Your task to perform on an android device: turn on wifi Image 0: 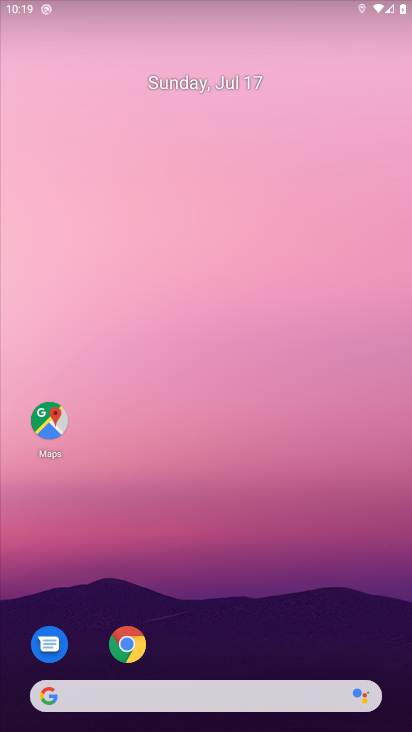
Step 0: press home button
Your task to perform on an android device: turn on wifi Image 1: 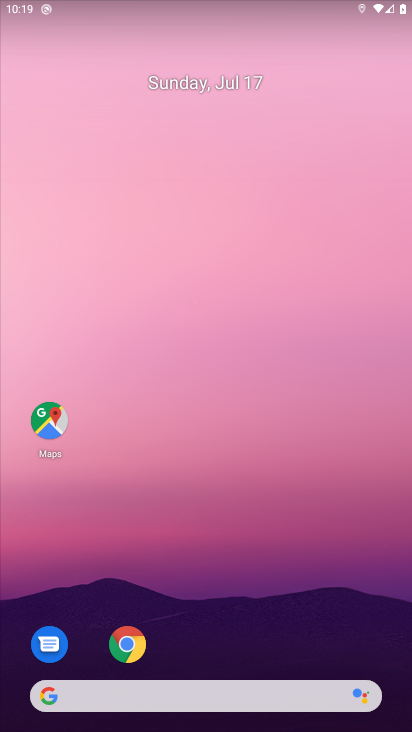
Step 1: press home button
Your task to perform on an android device: turn on wifi Image 2: 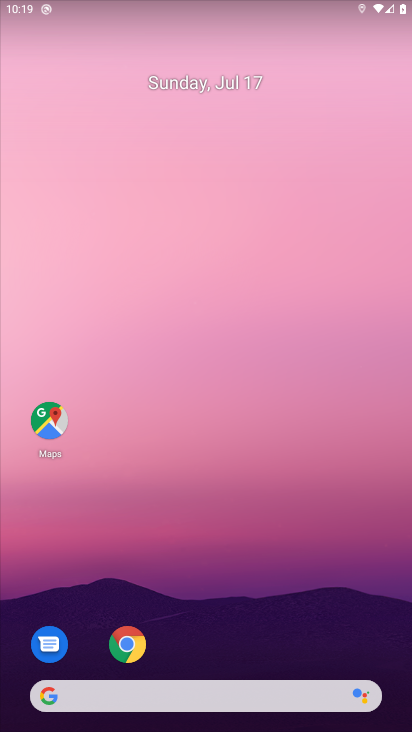
Step 2: drag from (301, 582) to (305, 171)
Your task to perform on an android device: turn on wifi Image 3: 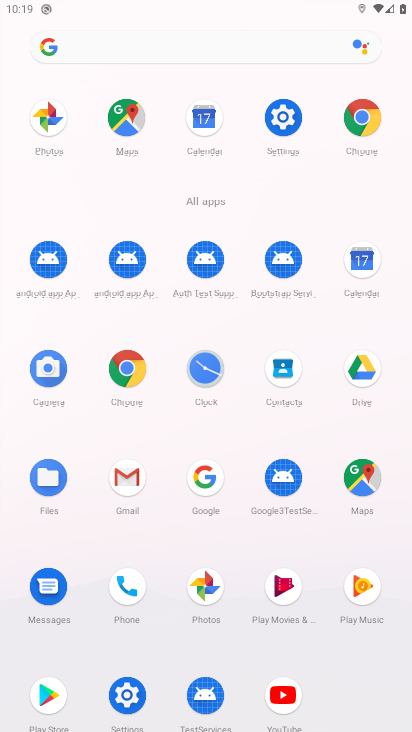
Step 3: click (287, 119)
Your task to perform on an android device: turn on wifi Image 4: 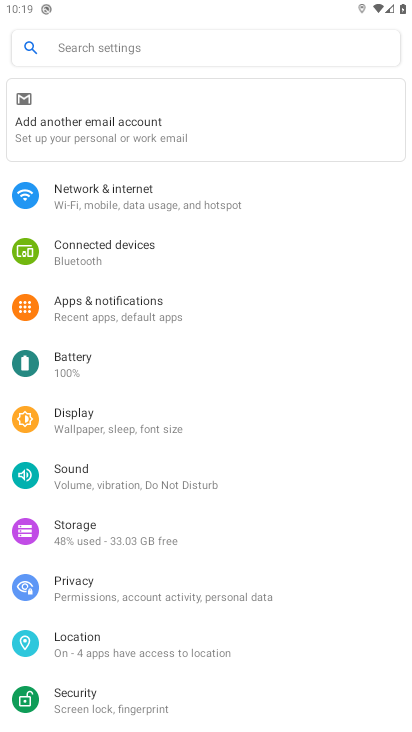
Step 4: click (104, 193)
Your task to perform on an android device: turn on wifi Image 5: 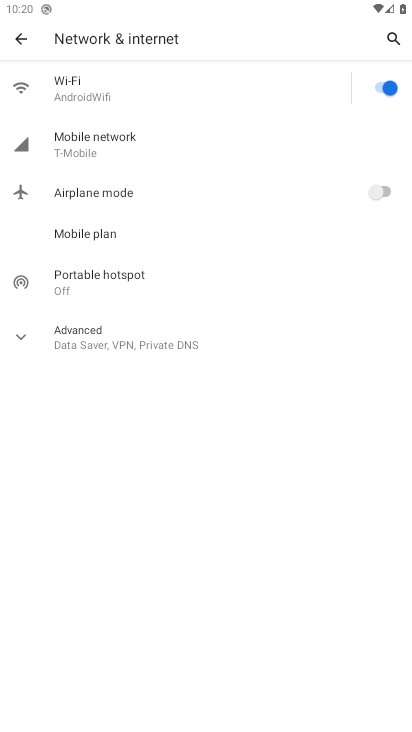
Step 5: task complete